Your task to perform on an android device: delete location history Image 0: 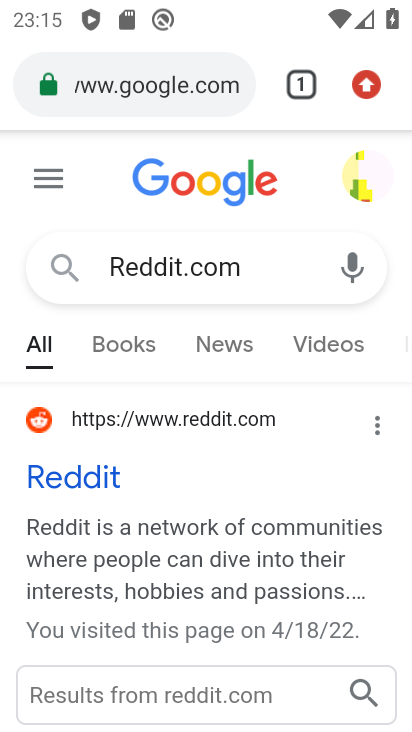
Step 0: press home button
Your task to perform on an android device: delete location history Image 1: 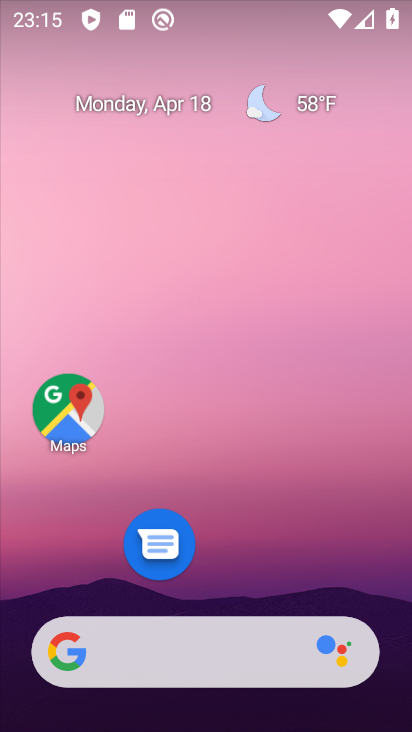
Step 1: drag from (258, 560) to (252, 118)
Your task to perform on an android device: delete location history Image 2: 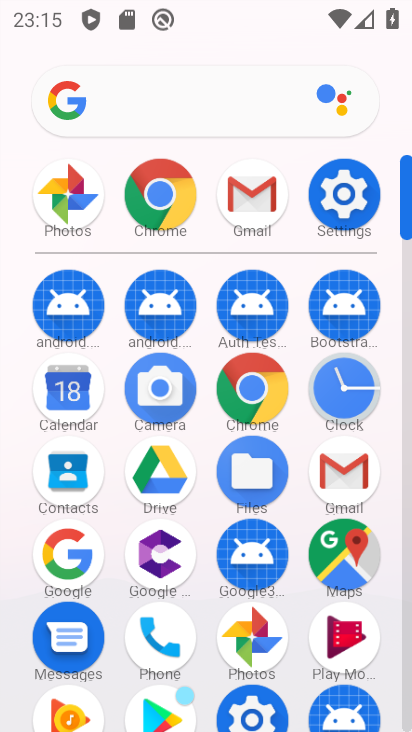
Step 2: click (352, 222)
Your task to perform on an android device: delete location history Image 3: 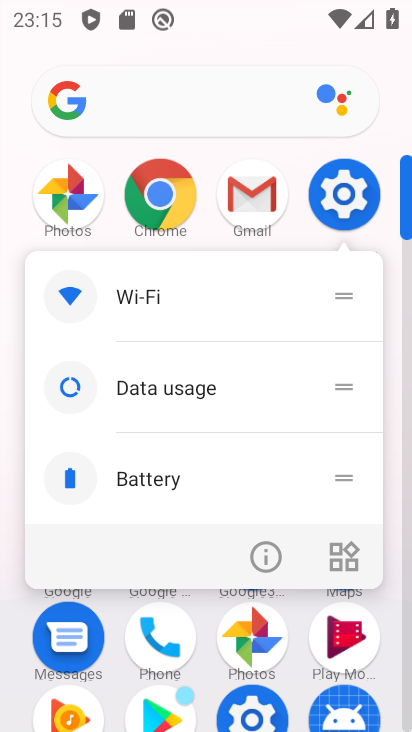
Step 3: click (352, 222)
Your task to perform on an android device: delete location history Image 4: 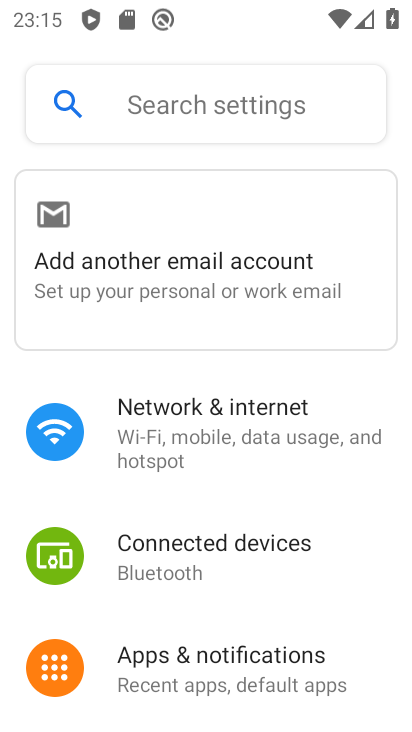
Step 4: drag from (217, 545) to (275, 431)
Your task to perform on an android device: delete location history Image 5: 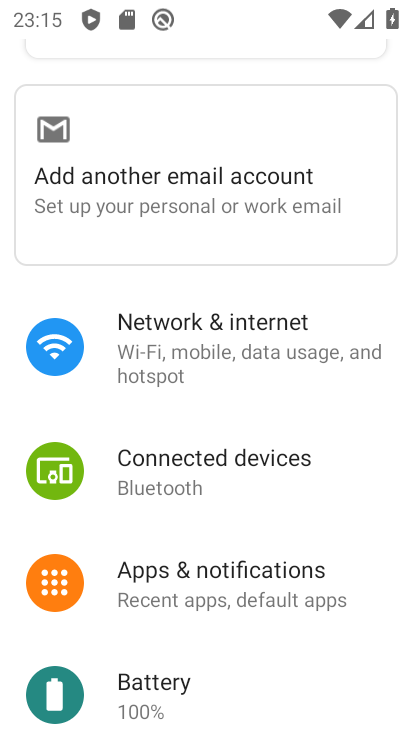
Step 5: drag from (254, 550) to (282, 443)
Your task to perform on an android device: delete location history Image 6: 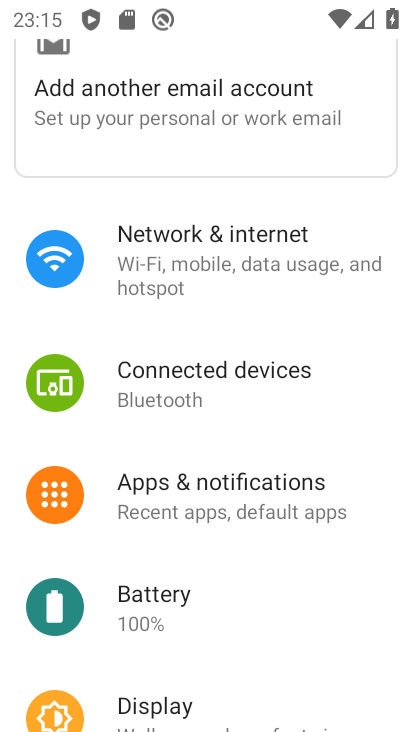
Step 6: drag from (239, 593) to (256, 425)
Your task to perform on an android device: delete location history Image 7: 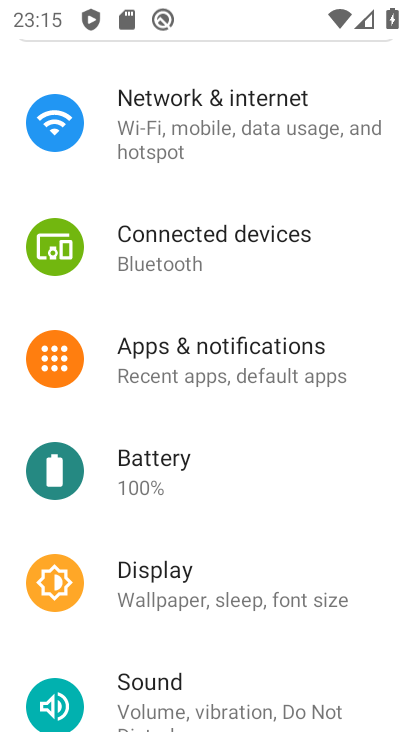
Step 7: drag from (196, 554) to (226, 421)
Your task to perform on an android device: delete location history Image 8: 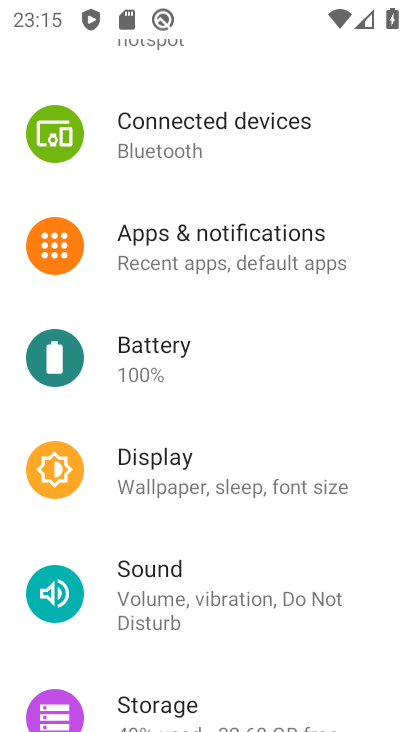
Step 8: drag from (214, 568) to (257, 426)
Your task to perform on an android device: delete location history Image 9: 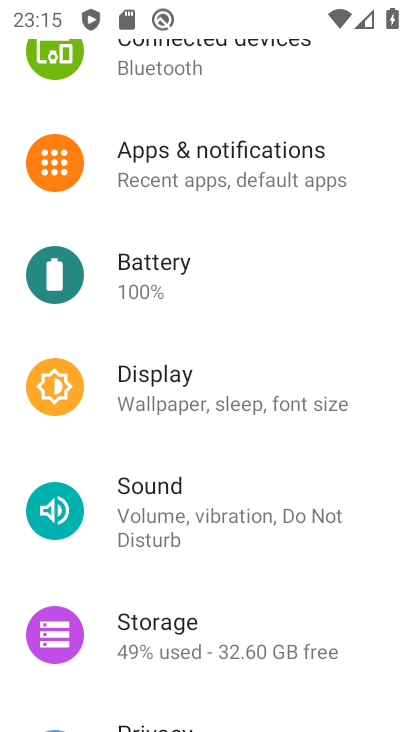
Step 9: drag from (209, 596) to (261, 427)
Your task to perform on an android device: delete location history Image 10: 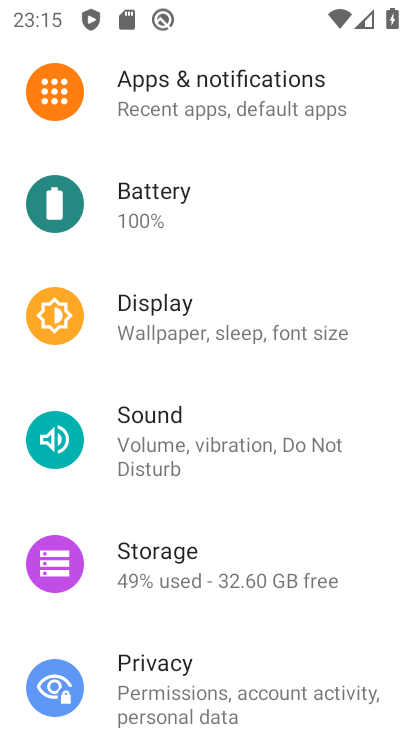
Step 10: drag from (204, 629) to (237, 455)
Your task to perform on an android device: delete location history Image 11: 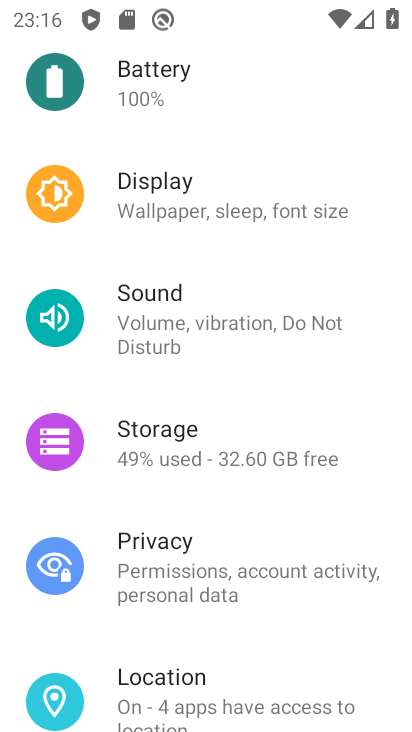
Step 11: drag from (212, 621) to (248, 431)
Your task to perform on an android device: delete location history Image 12: 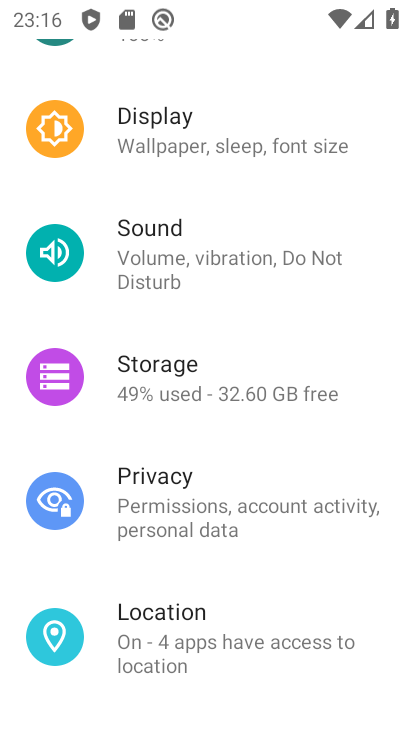
Step 12: click (181, 617)
Your task to perform on an android device: delete location history Image 13: 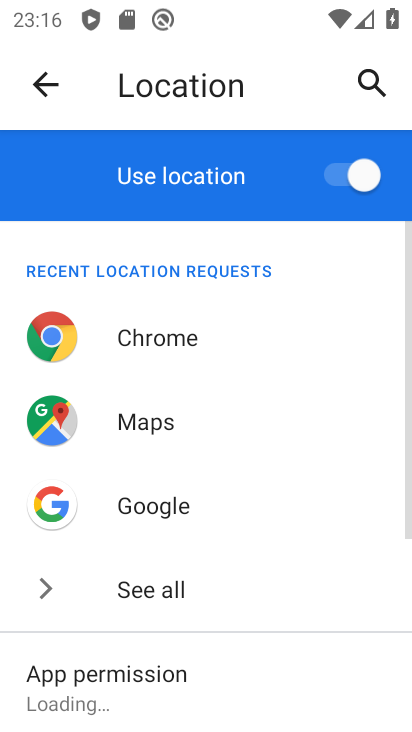
Step 13: drag from (229, 556) to (254, 367)
Your task to perform on an android device: delete location history Image 14: 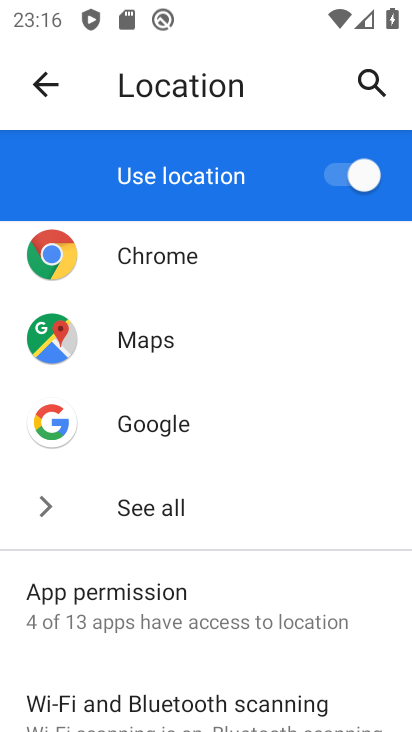
Step 14: drag from (228, 600) to (279, 439)
Your task to perform on an android device: delete location history Image 15: 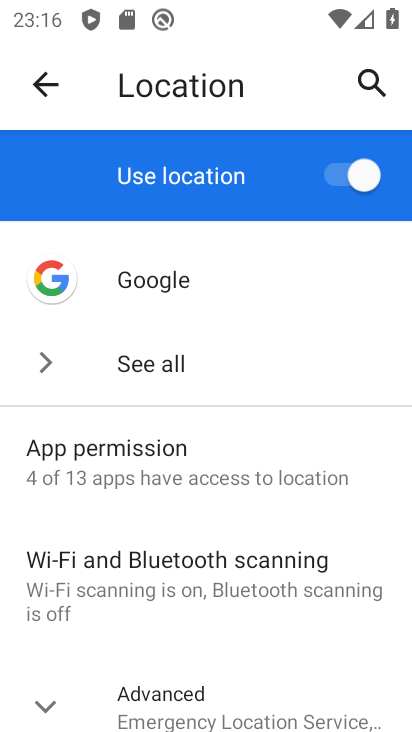
Step 15: drag from (252, 630) to (287, 437)
Your task to perform on an android device: delete location history Image 16: 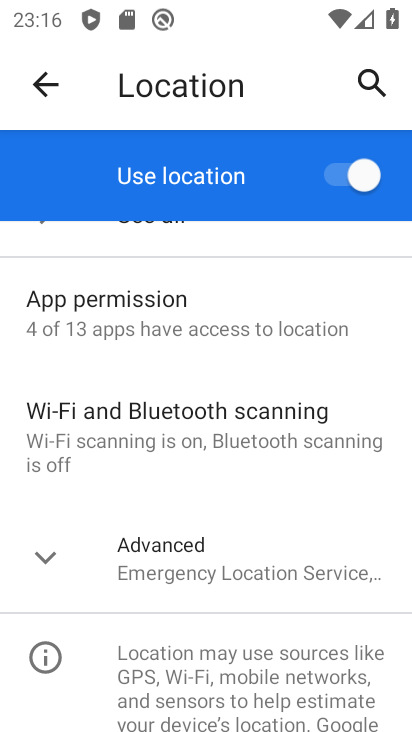
Step 16: click (257, 562)
Your task to perform on an android device: delete location history Image 17: 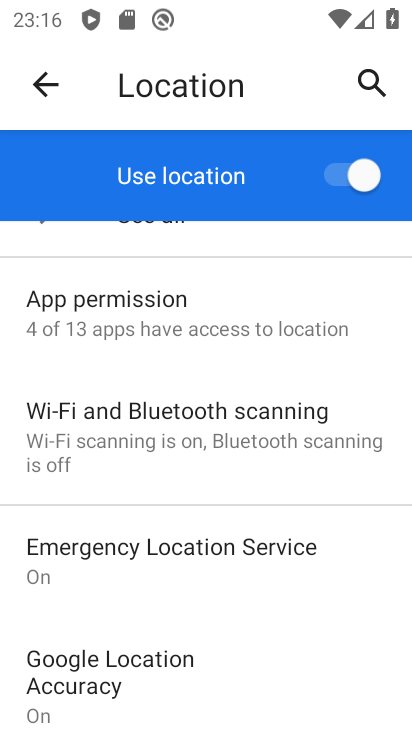
Step 17: drag from (169, 616) to (201, 454)
Your task to perform on an android device: delete location history Image 18: 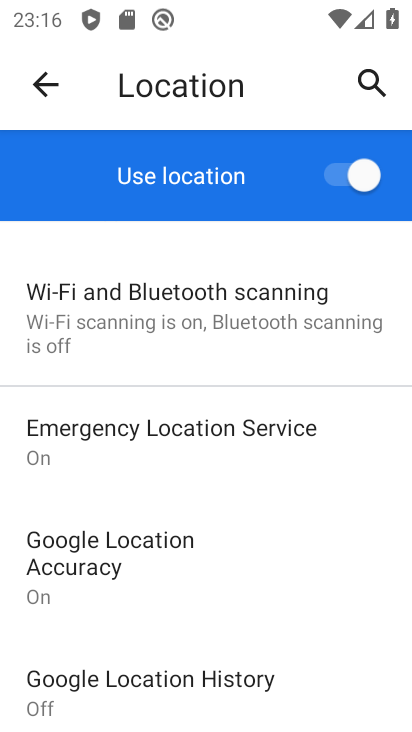
Step 18: drag from (278, 605) to (296, 452)
Your task to perform on an android device: delete location history Image 19: 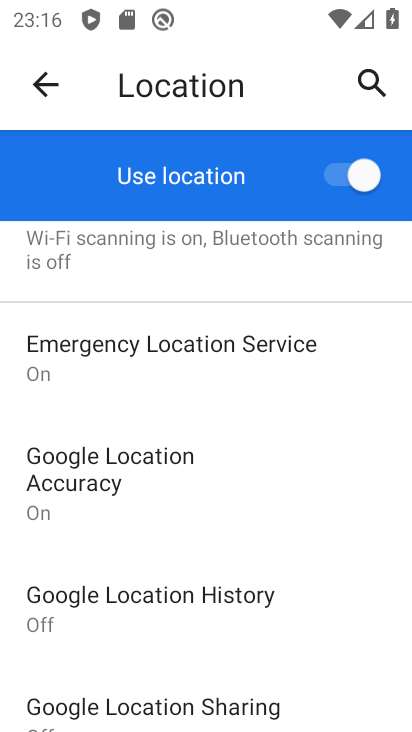
Step 19: click (263, 596)
Your task to perform on an android device: delete location history Image 20: 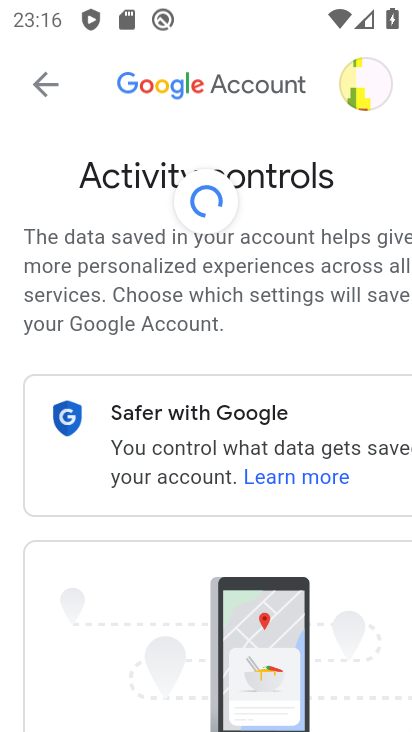
Step 20: task complete